Your task to perform on an android device: clear all cookies in the chrome app Image 0: 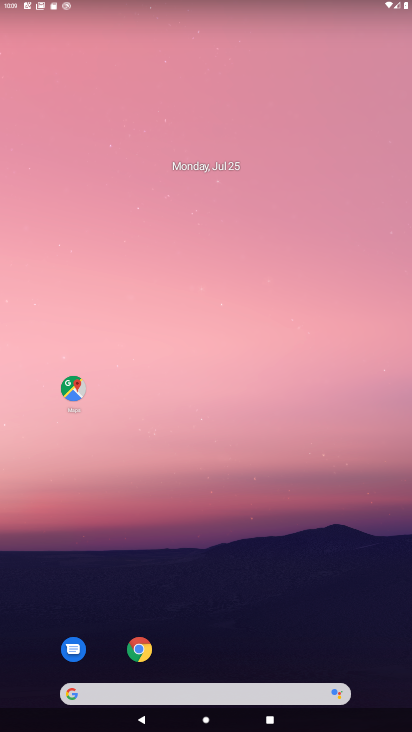
Step 0: click (140, 648)
Your task to perform on an android device: clear all cookies in the chrome app Image 1: 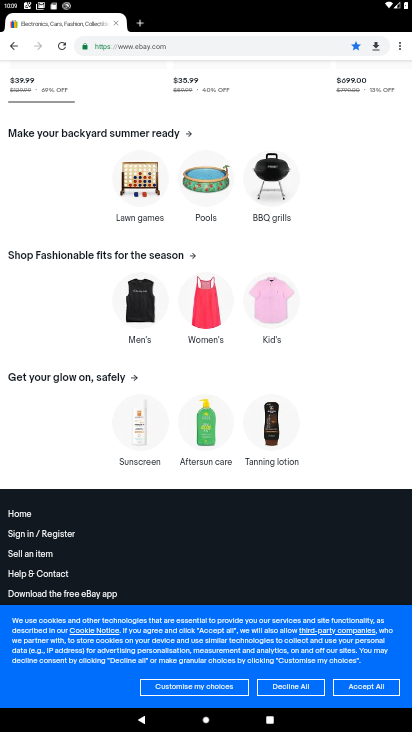
Step 1: click (399, 49)
Your task to perform on an android device: clear all cookies in the chrome app Image 2: 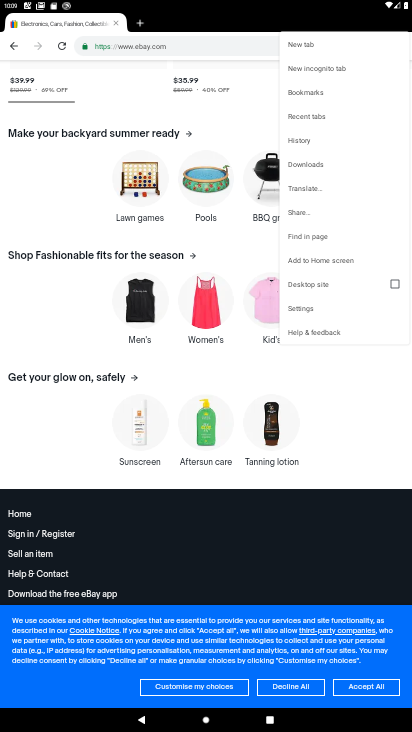
Step 2: click (298, 143)
Your task to perform on an android device: clear all cookies in the chrome app Image 3: 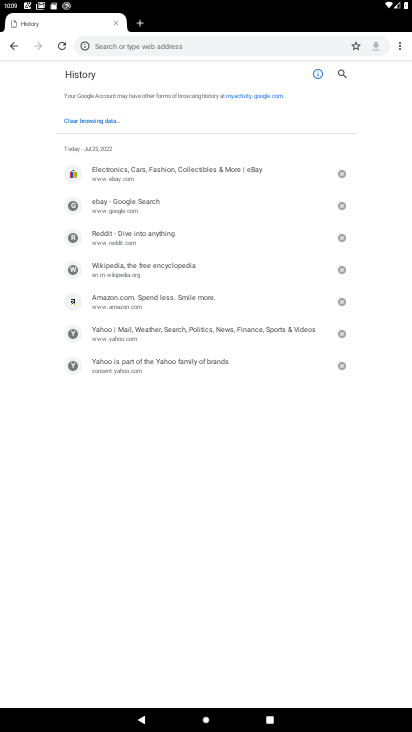
Step 3: click (92, 117)
Your task to perform on an android device: clear all cookies in the chrome app Image 4: 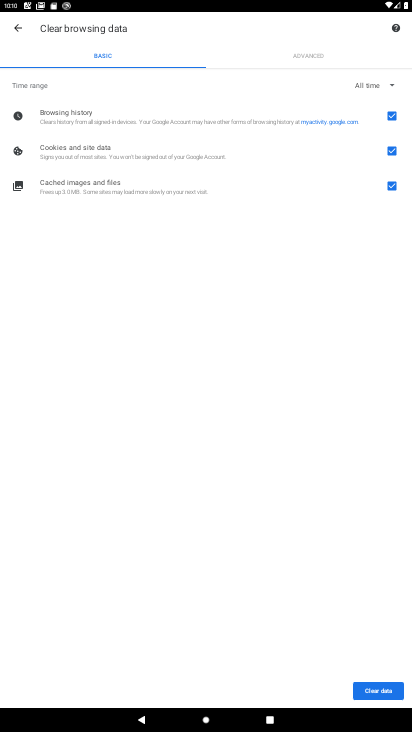
Step 4: click (391, 116)
Your task to perform on an android device: clear all cookies in the chrome app Image 5: 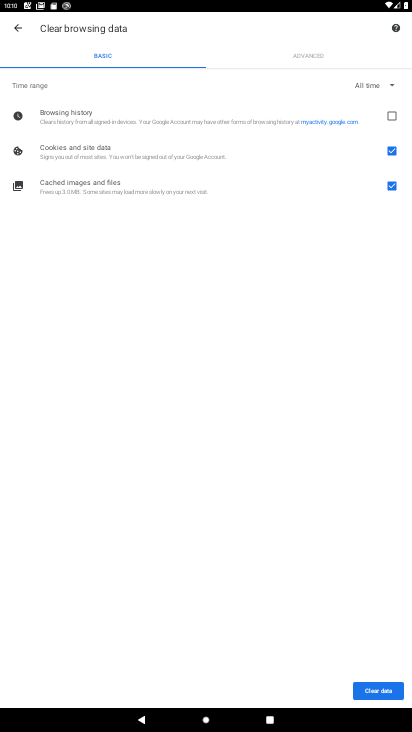
Step 5: click (390, 182)
Your task to perform on an android device: clear all cookies in the chrome app Image 6: 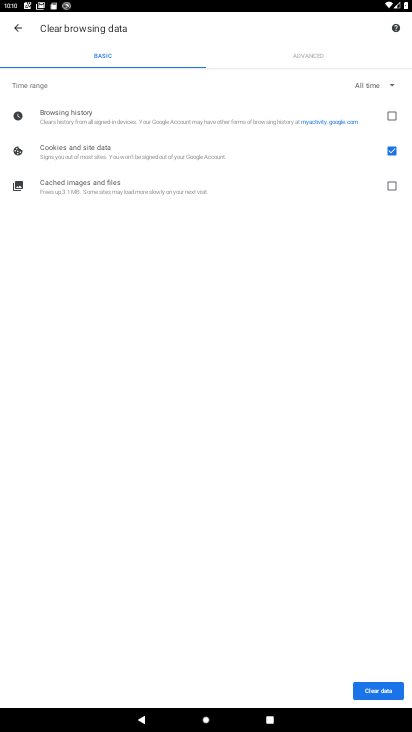
Step 6: click (376, 690)
Your task to perform on an android device: clear all cookies in the chrome app Image 7: 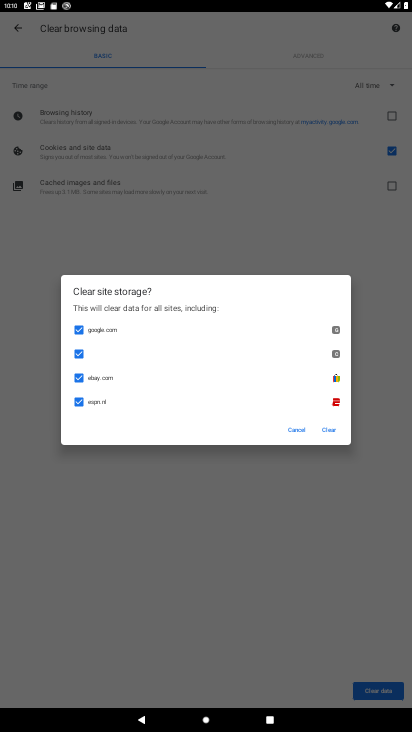
Step 7: click (326, 429)
Your task to perform on an android device: clear all cookies in the chrome app Image 8: 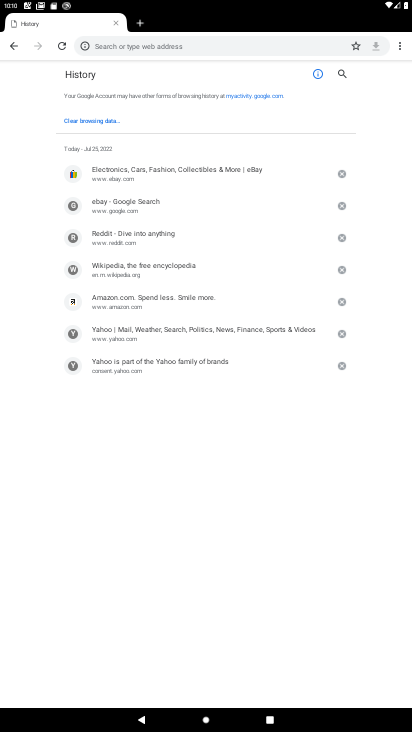
Step 8: task complete